Your task to perform on an android device: open the mobile data screen to see how much data has been used Image 0: 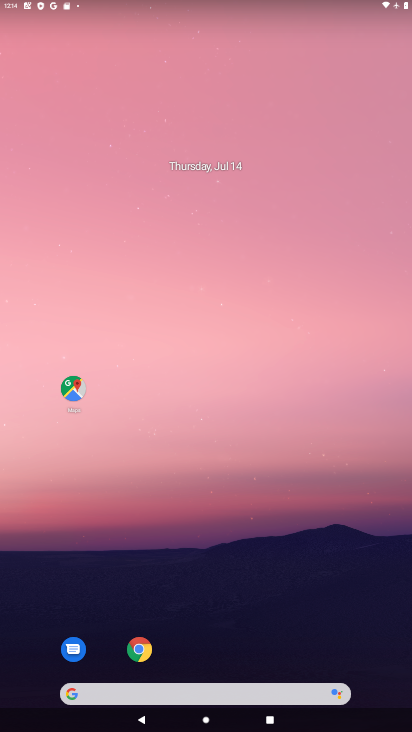
Step 0: drag from (222, 611) to (245, 252)
Your task to perform on an android device: open the mobile data screen to see how much data has been used Image 1: 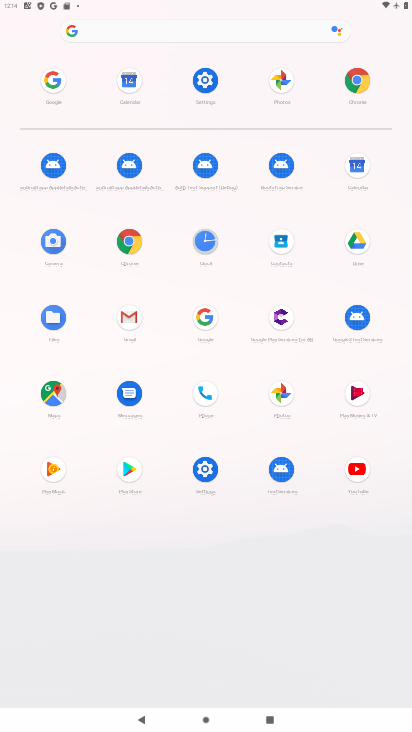
Step 1: click (205, 60)
Your task to perform on an android device: open the mobile data screen to see how much data has been used Image 2: 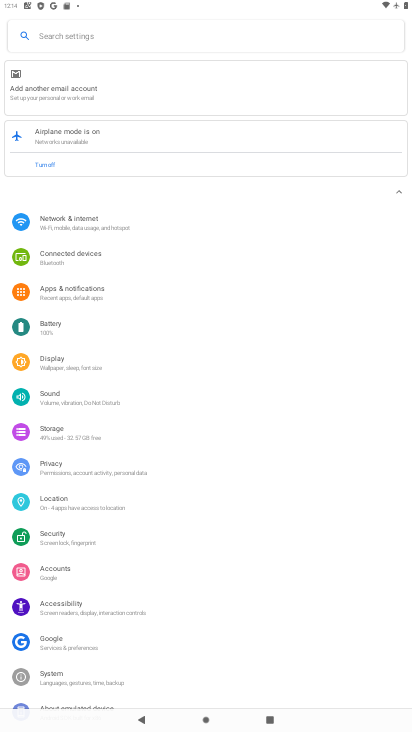
Step 2: click (89, 225)
Your task to perform on an android device: open the mobile data screen to see how much data has been used Image 3: 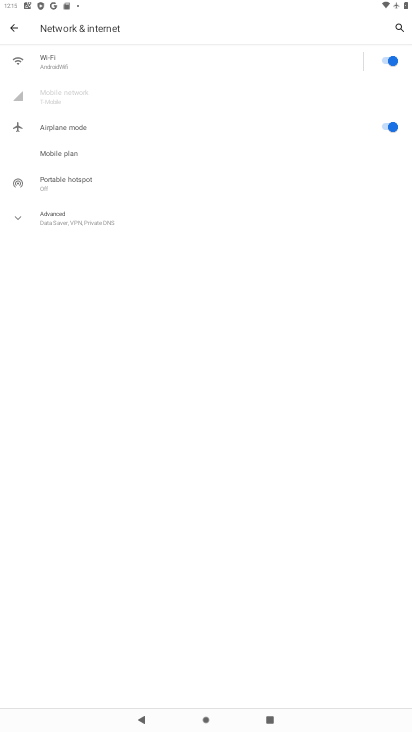
Step 3: task complete